Your task to perform on an android device: What's the weather today? Image 0: 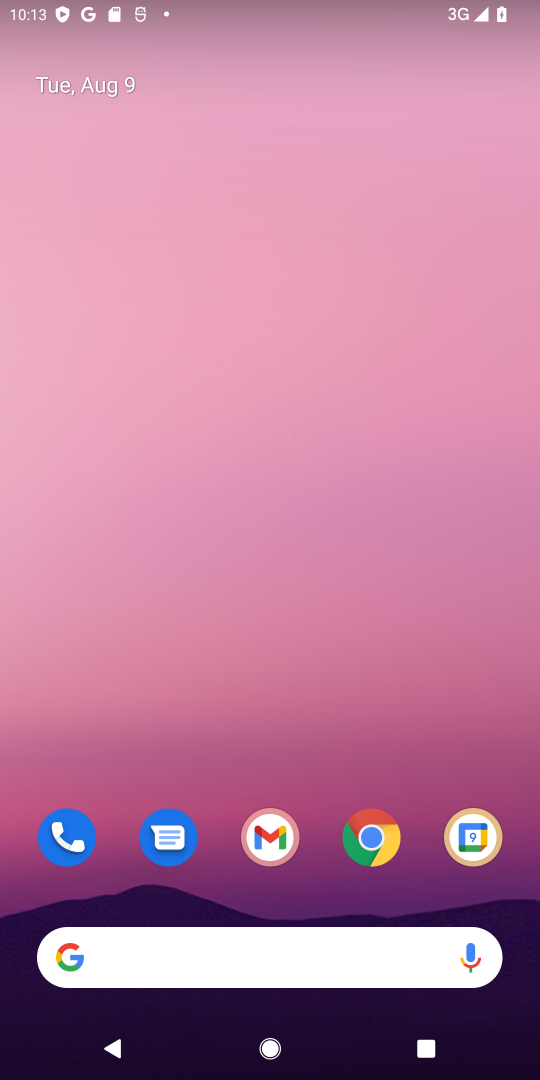
Step 0: drag from (324, 907) to (309, 2)
Your task to perform on an android device: What's the weather today? Image 1: 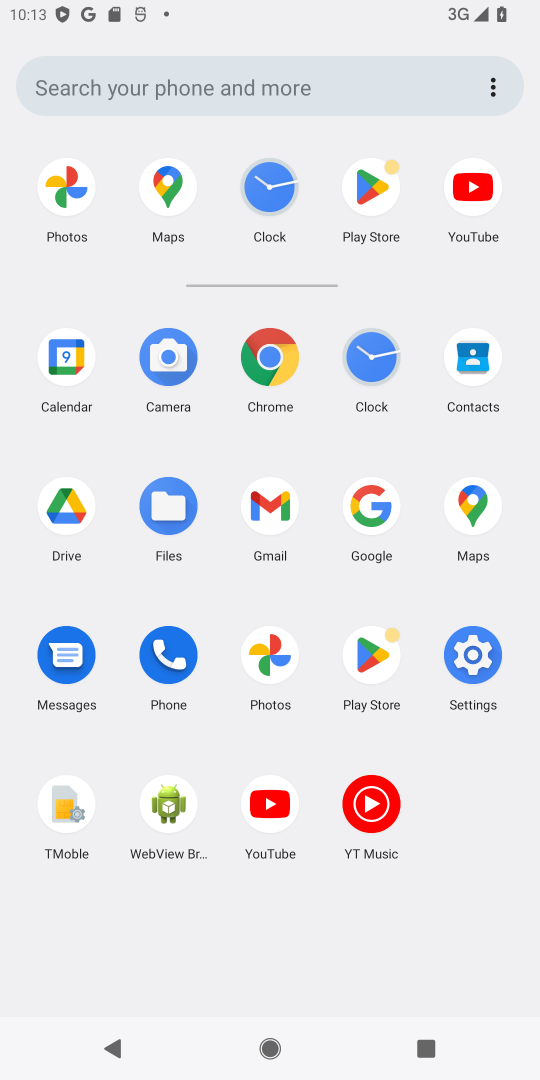
Step 1: click (373, 506)
Your task to perform on an android device: What's the weather today? Image 2: 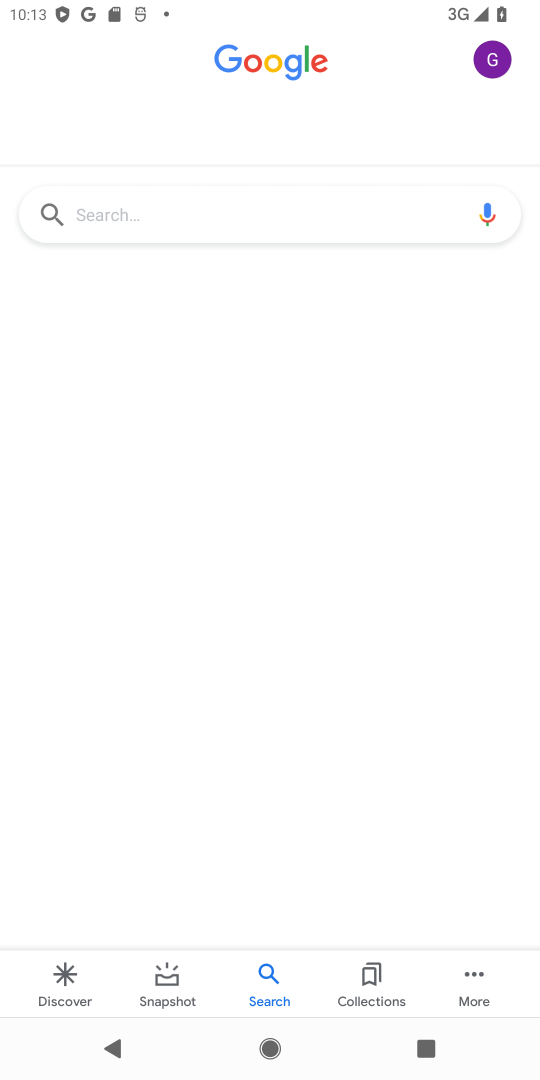
Step 2: click (163, 211)
Your task to perform on an android device: What's the weather today? Image 3: 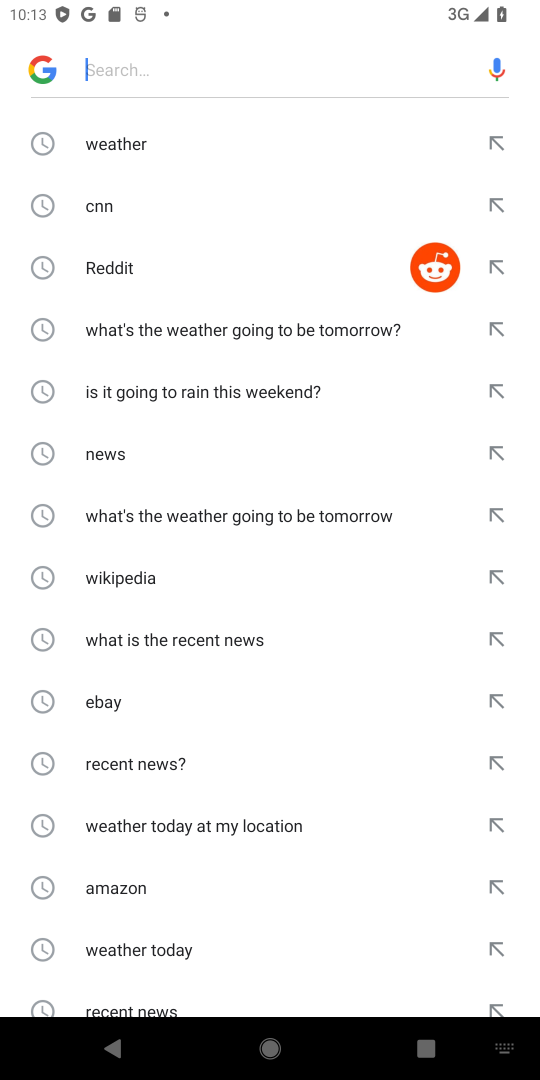
Step 3: click (105, 137)
Your task to perform on an android device: What's the weather today? Image 4: 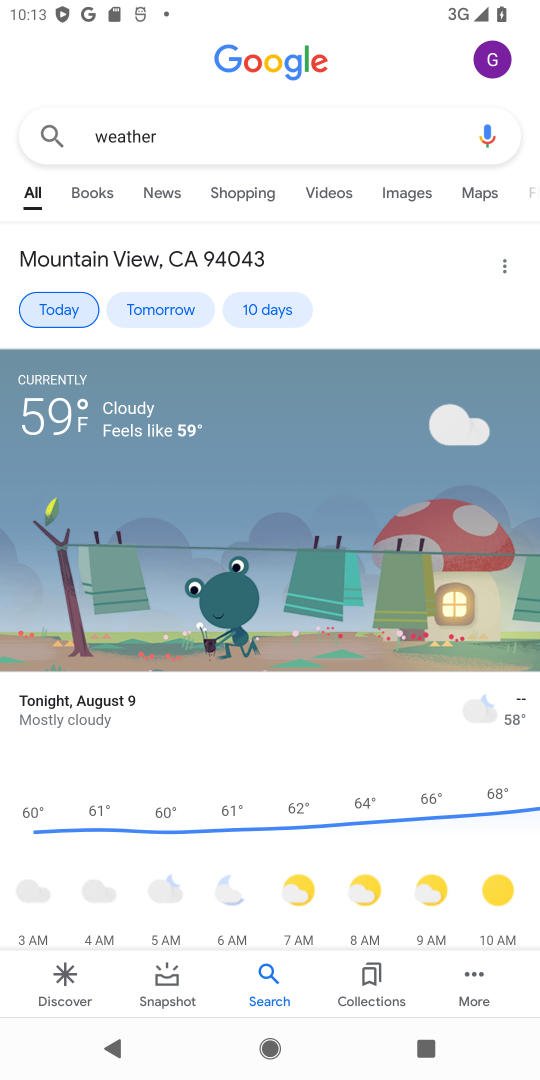
Step 4: click (58, 316)
Your task to perform on an android device: What's the weather today? Image 5: 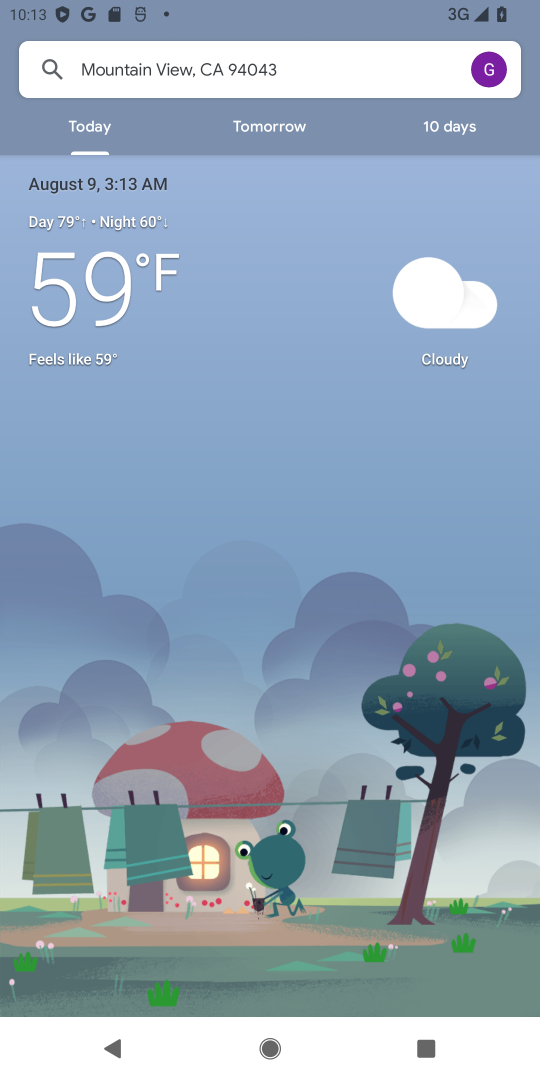
Step 5: task complete